Your task to perform on an android device: turn on sleep mode Image 0: 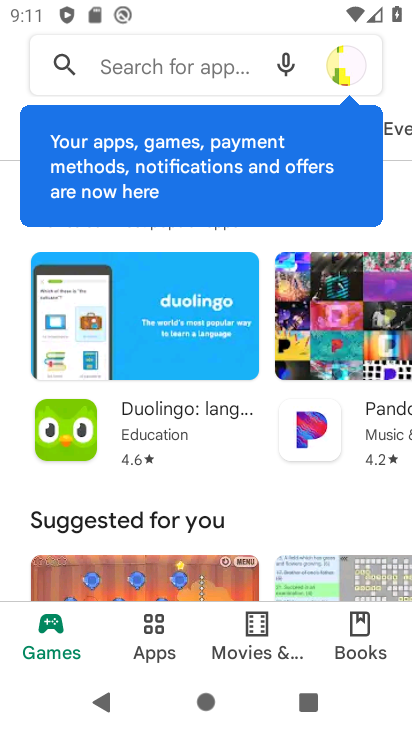
Step 0: press home button
Your task to perform on an android device: turn on sleep mode Image 1: 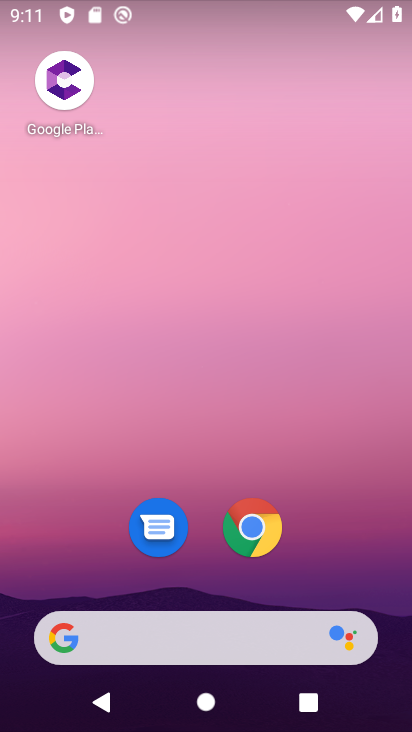
Step 1: drag from (394, 610) to (306, 16)
Your task to perform on an android device: turn on sleep mode Image 2: 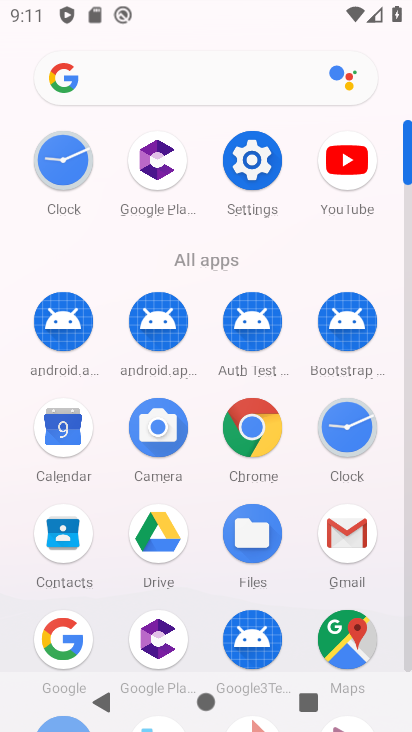
Step 2: click (407, 653)
Your task to perform on an android device: turn on sleep mode Image 3: 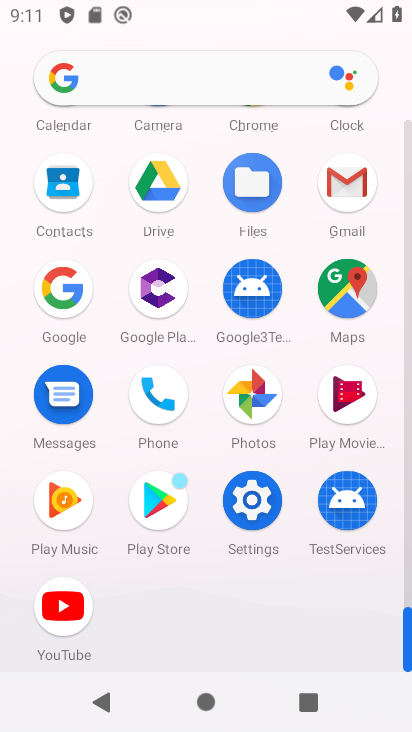
Step 3: click (253, 500)
Your task to perform on an android device: turn on sleep mode Image 4: 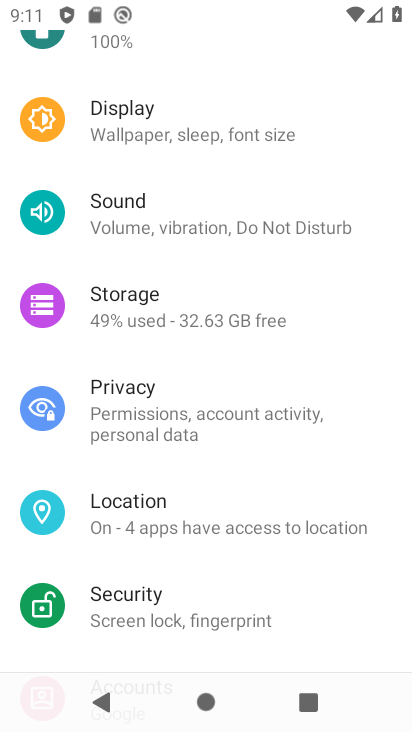
Step 4: click (155, 123)
Your task to perform on an android device: turn on sleep mode Image 5: 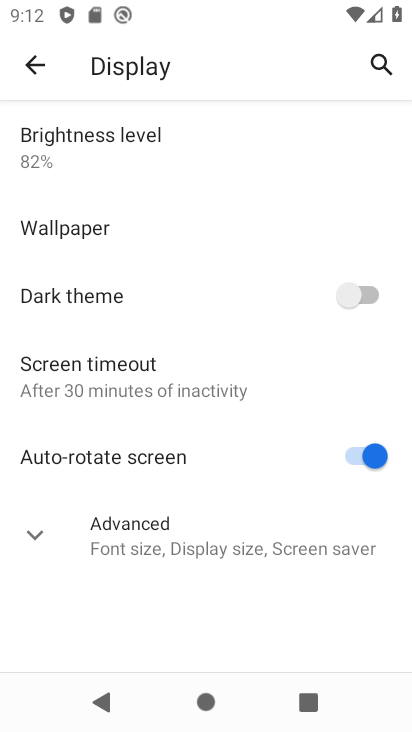
Step 5: click (34, 530)
Your task to perform on an android device: turn on sleep mode Image 6: 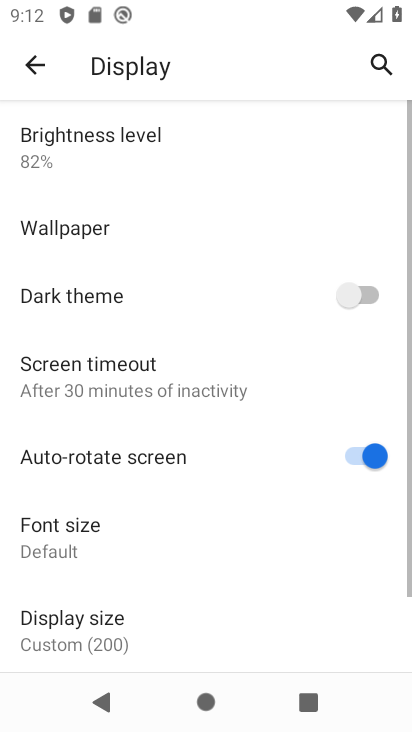
Step 6: task complete